Your task to perform on an android device: turn off picture-in-picture Image 0: 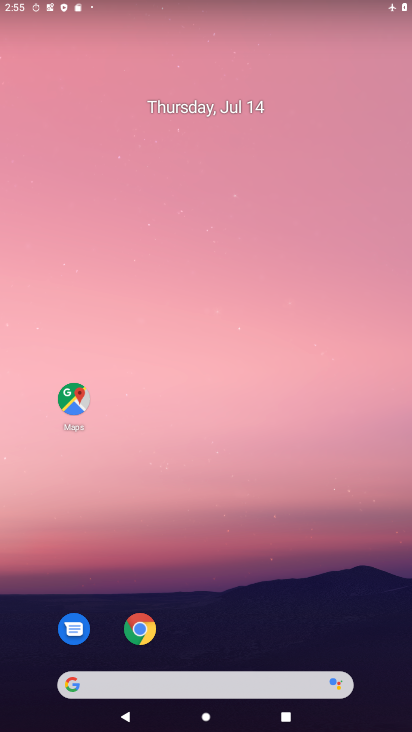
Step 0: click (144, 620)
Your task to perform on an android device: turn off picture-in-picture Image 1: 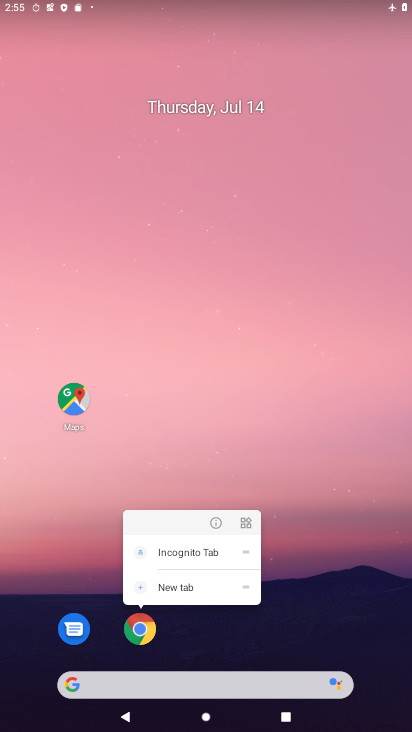
Step 1: click (217, 520)
Your task to perform on an android device: turn off picture-in-picture Image 2: 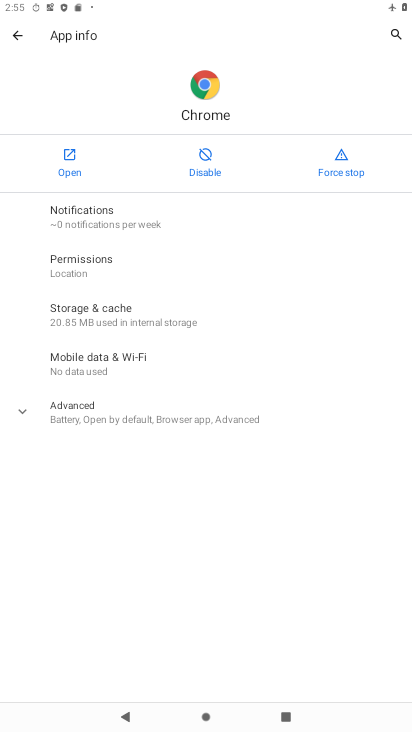
Step 2: click (151, 406)
Your task to perform on an android device: turn off picture-in-picture Image 3: 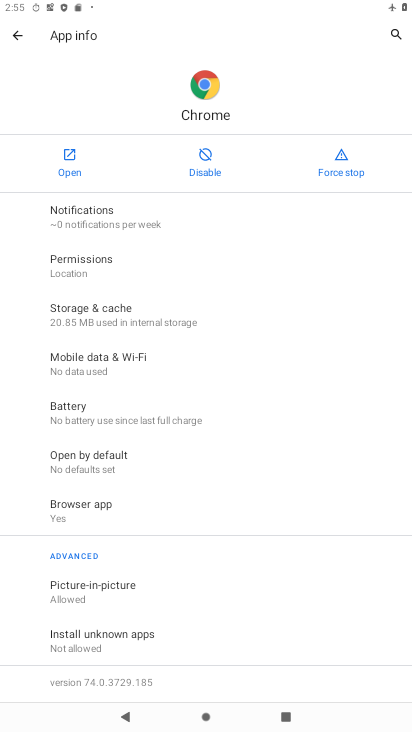
Step 3: click (109, 590)
Your task to perform on an android device: turn off picture-in-picture Image 4: 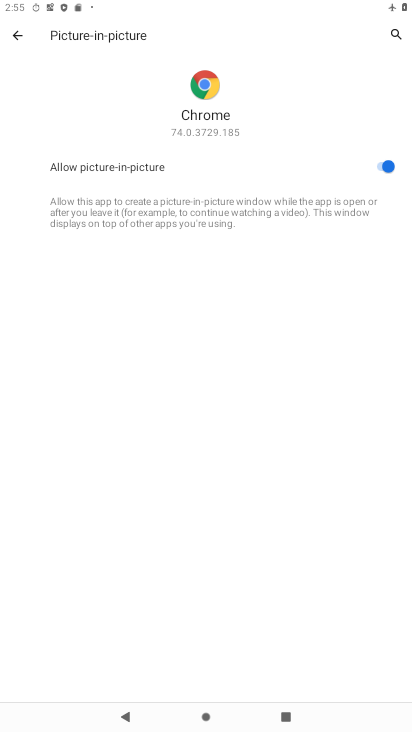
Step 4: click (382, 164)
Your task to perform on an android device: turn off picture-in-picture Image 5: 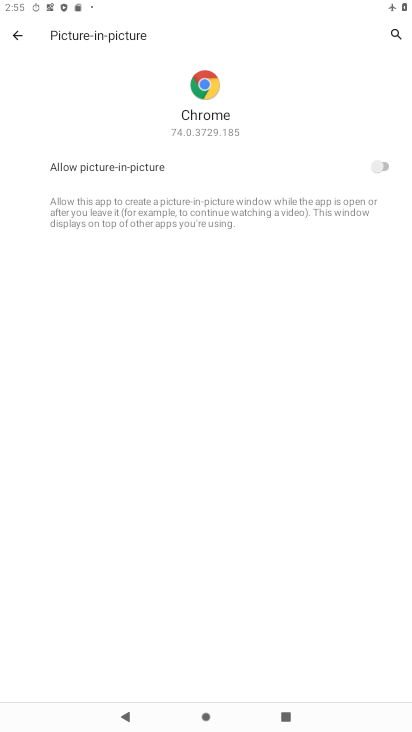
Step 5: task complete